Your task to perform on an android device: set the timer Image 0: 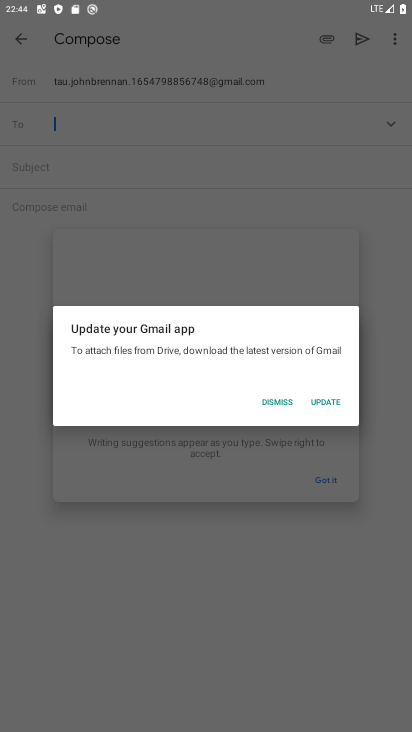
Step 0: press home button
Your task to perform on an android device: set the timer Image 1: 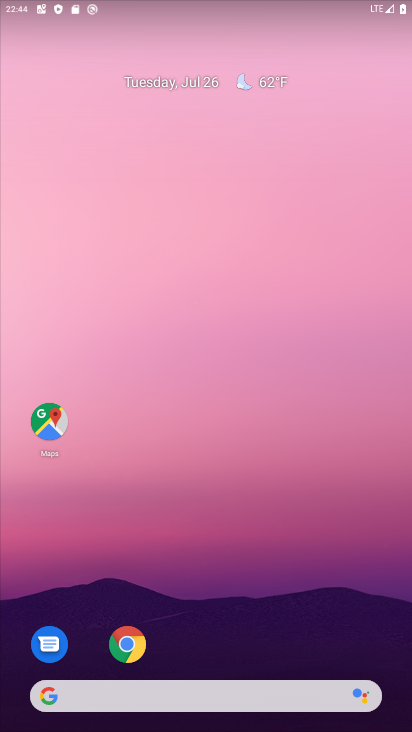
Step 1: drag from (262, 616) to (260, 20)
Your task to perform on an android device: set the timer Image 2: 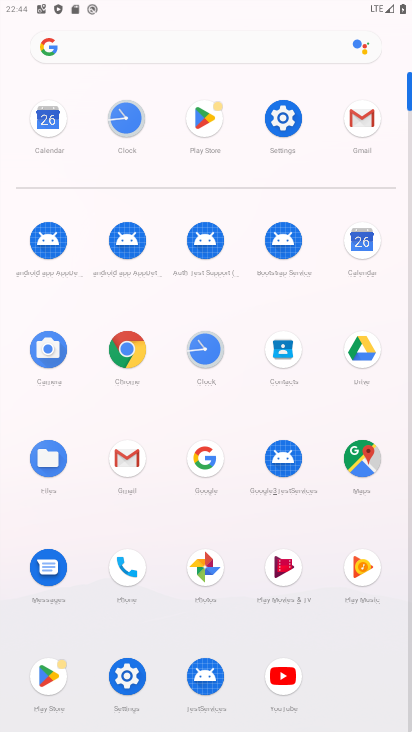
Step 2: click (202, 360)
Your task to perform on an android device: set the timer Image 3: 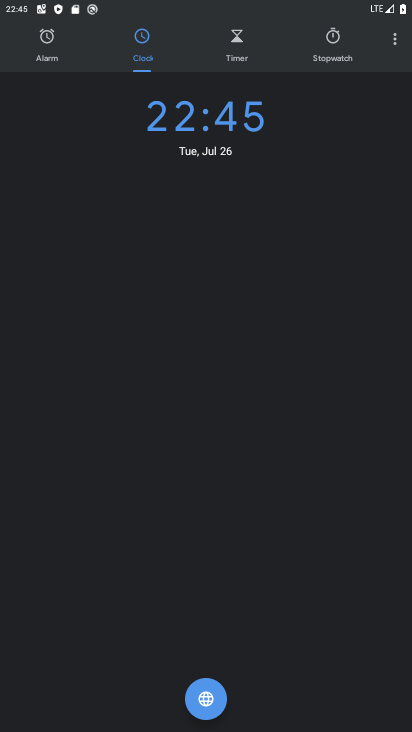
Step 3: click (238, 47)
Your task to perform on an android device: set the timer Image 4: 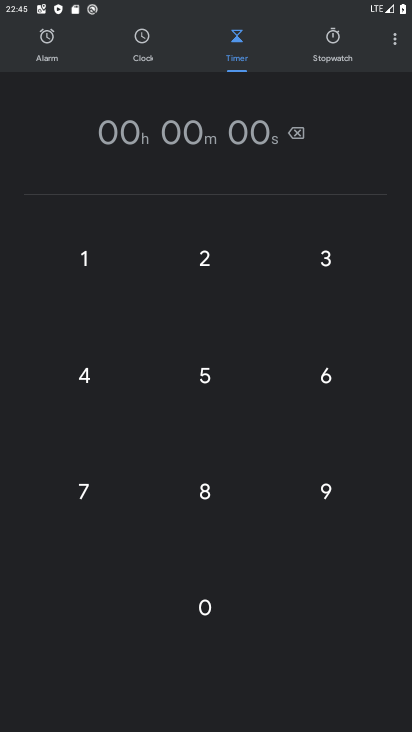
Step 4: click (71, 375)
Your task to perform on an android device: set the timer Image 5: 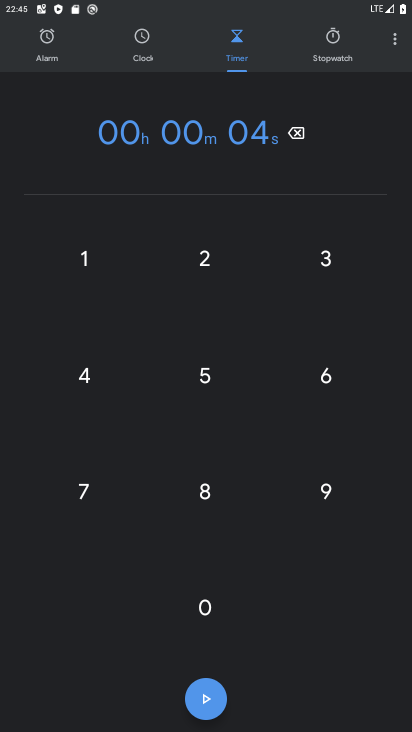
Step 5: click (207, 371)
Your task to perform on an android device: set the timer Image 6: 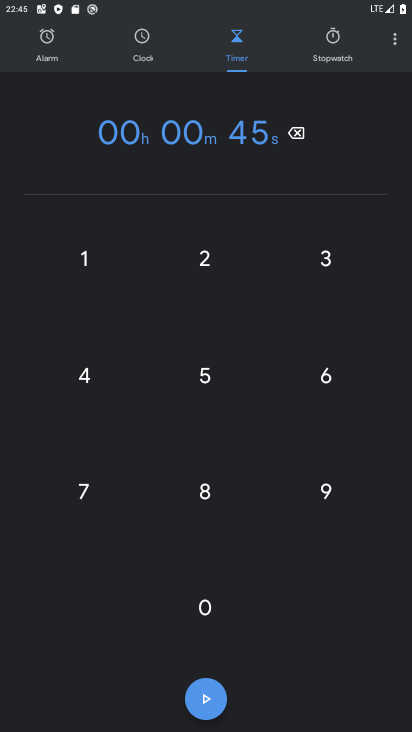
Step 6: click (210, 704)
Your task to perform on an android device: set the timer Image 7: 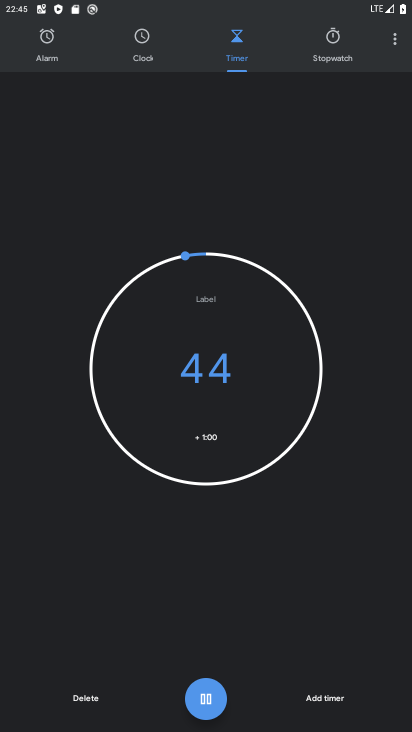
Step 7: task complete